Your task to perform on an android device: open a new tab in the chrome app Image 0: 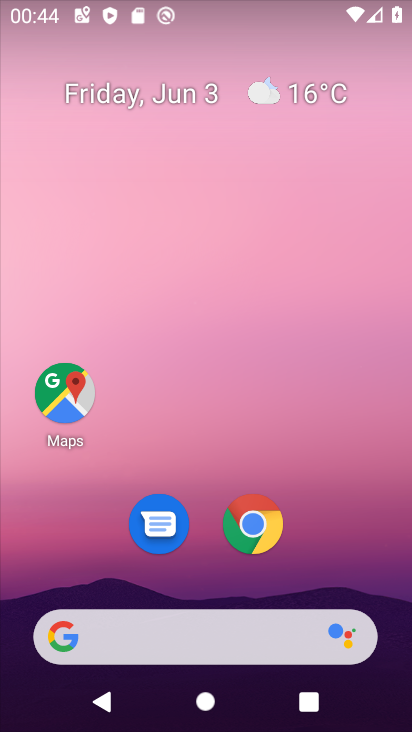
Step 0: click (256, 540)
Your task to perform on an android device: open a new tab in the chrome app Image 1: 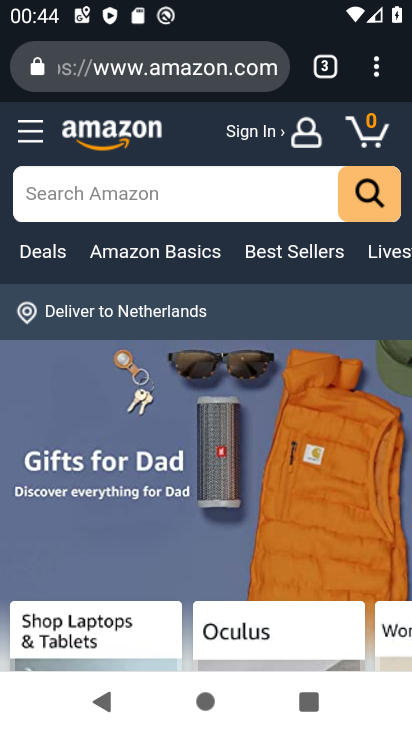
Step 1: click (372, 61)
Your task to perform on an android device: open a new tab in the chrome app Image 2: 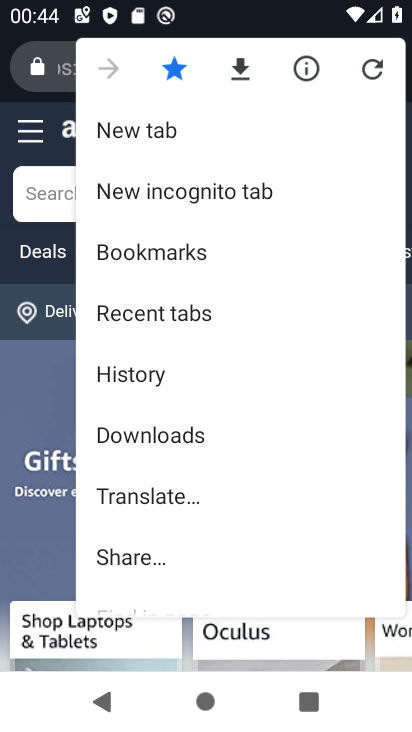
Step 2: click (267, 134)
Your task to perform on an android device: open a new tab in the chrome app Image 3: 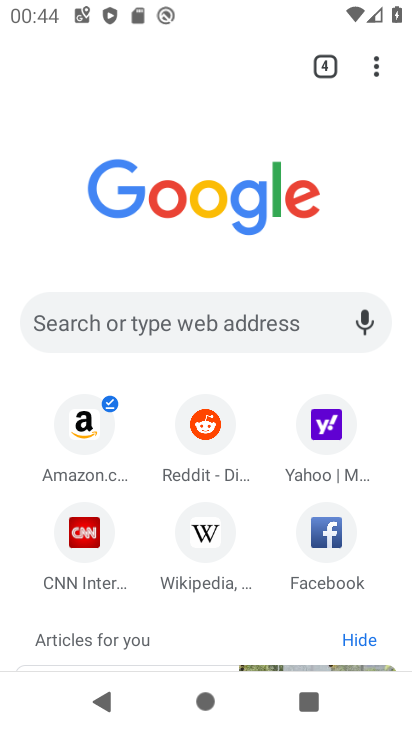
Step 3: task complete